Your task to perform on an android device: Go to calendar. Show me events next week Image 0: 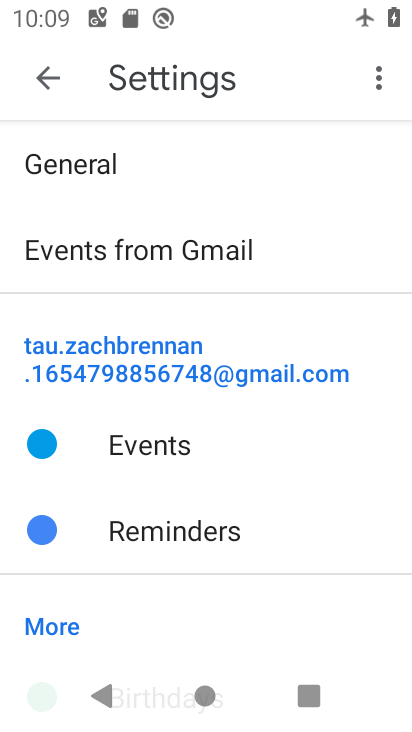
Step 0: press home button
Your task to perform on an android device: Go to calendar. Show me events next week Image 1: 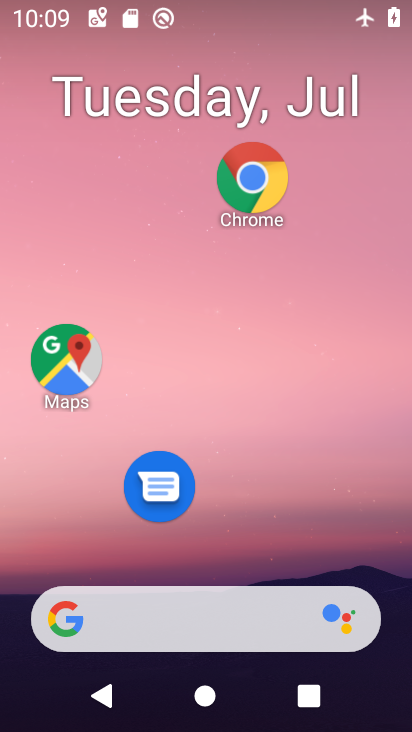
Step 1: drag from (252, 631) to (151, 188)
Your task to perform on an android device: Go to calendar. Show me events next week Image 2: 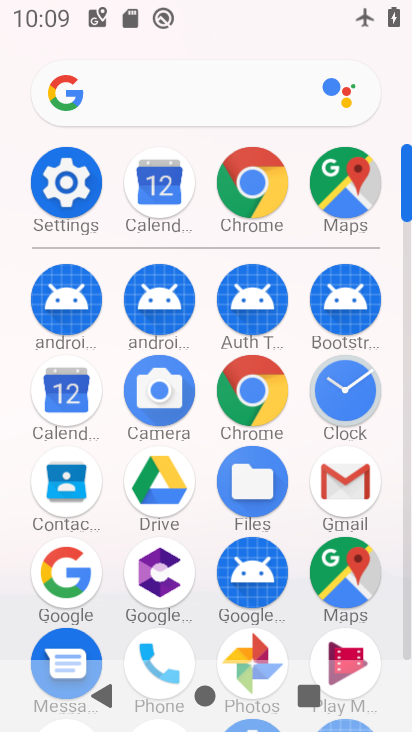
Step 2: click (79, 422)
Your task to perform on an android device: Go to calendar. Show me events next week Image 3: 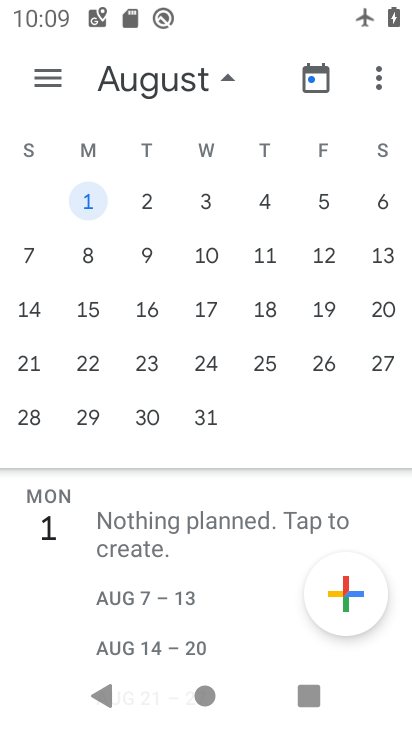
Step 3: drag from (92, 294) to (404, 247)
Your task to perform on an android device: Go to calendar. Show me events next week Image 4: 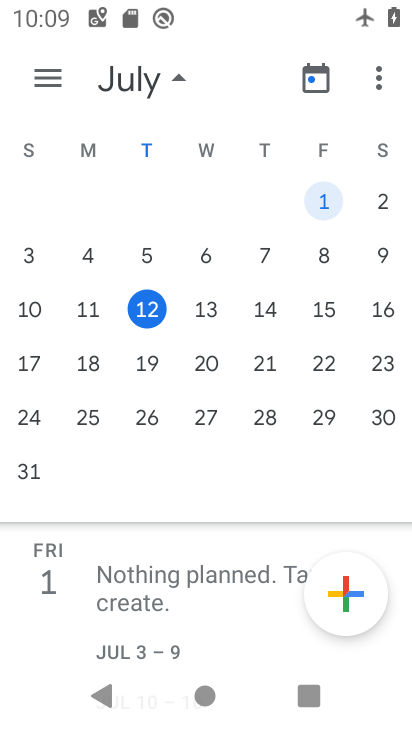
Step 4: click (157, 310)
Your task to perform on an android device: Go to calendar. Show me events next week Image 5: 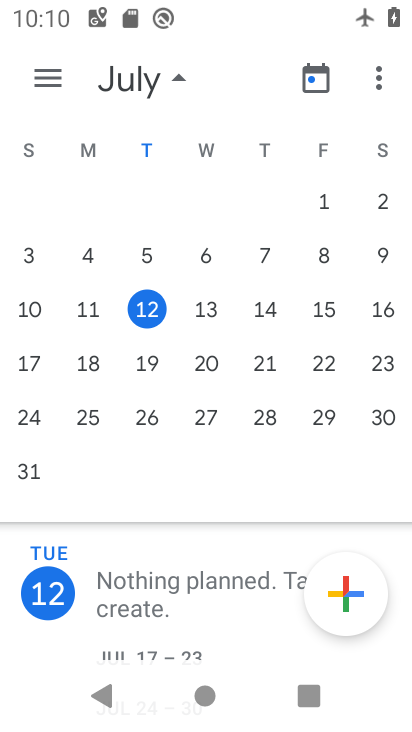
Step 5: task complete